Your task to perform on an android device: open app "Spotify: Music and Podcasts" (install if not already installed) Image 0: 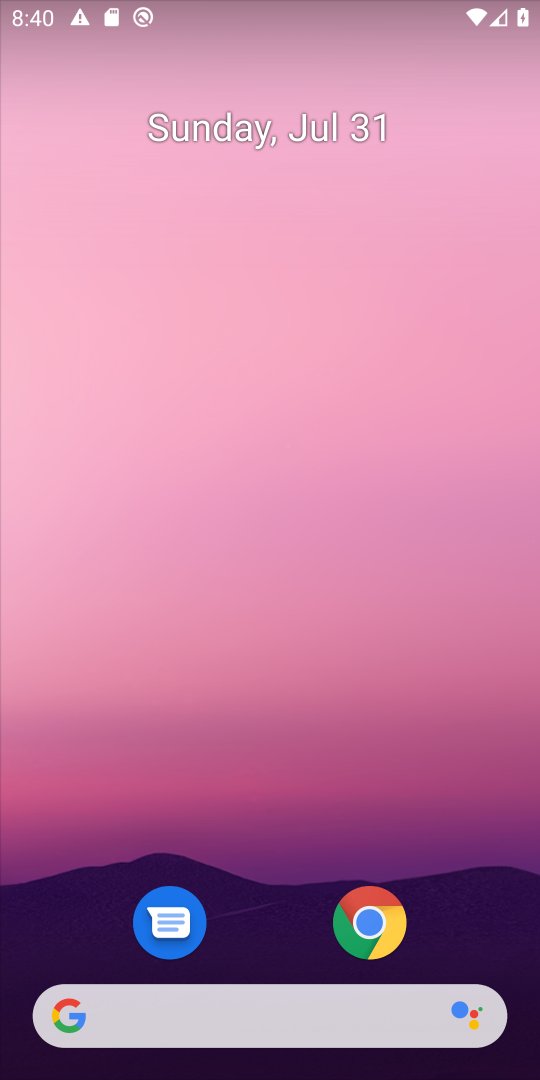
Step 0: drag from (285, 992) to (318, 384)
Your task to perform on an android device: open app "Spotify: Music and Podcasts" (install if not already installed) Image 1: 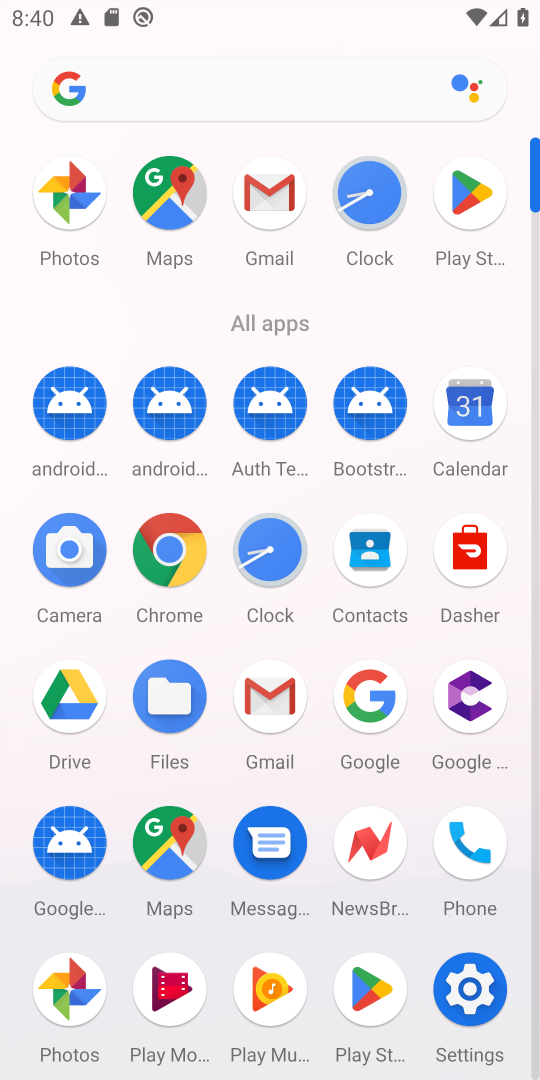
Step 1: click (461, 196)
Your task to perform on an android device: open app "Spotify: Music and Podcasts" (install if not already installed) Image 2: 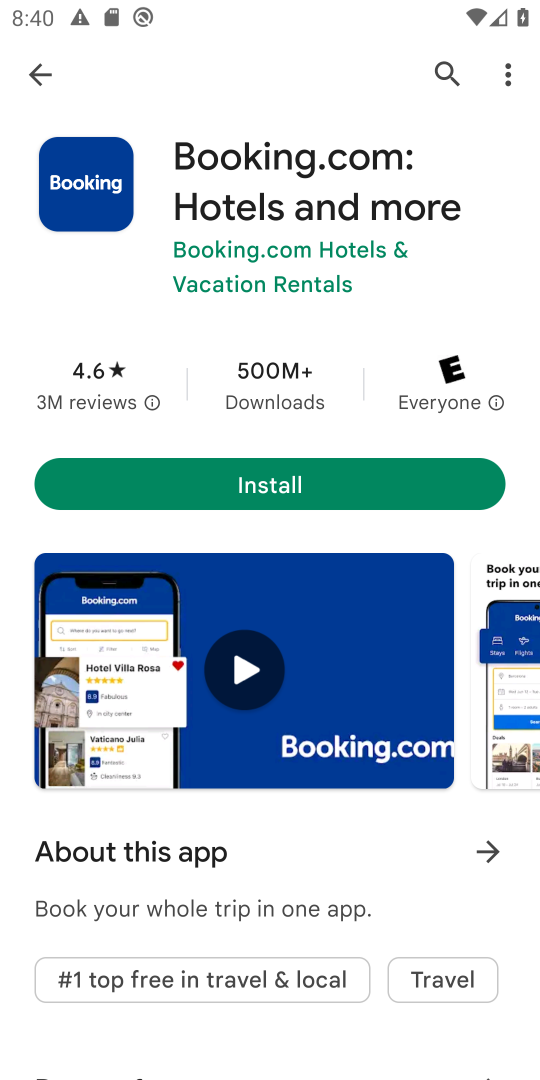
Step 2: click (452, 70)
Your task to perform on an android device: open app "Spotify: Music and Podcasts" (install if not already installed) Image 3: 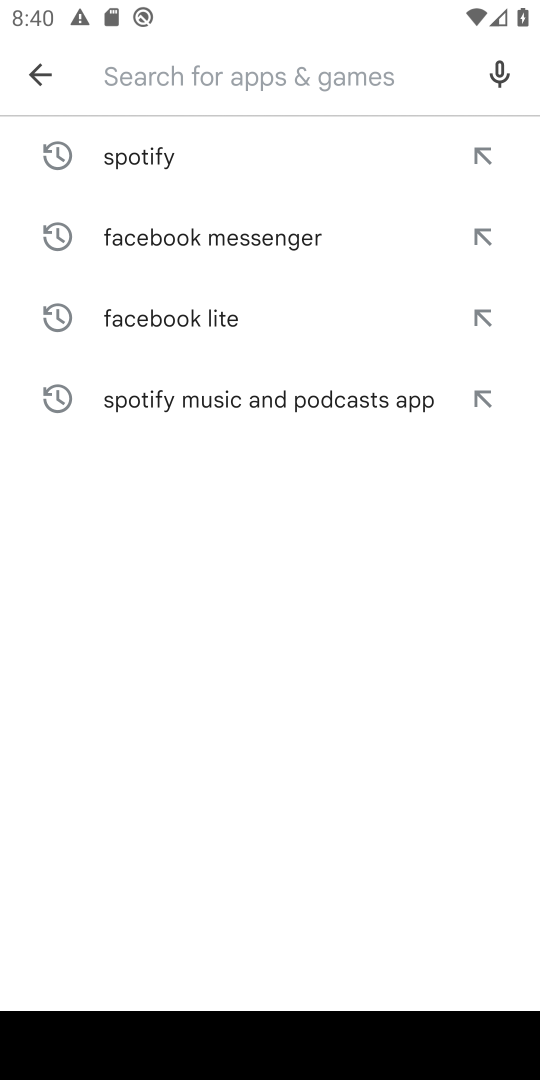
Step 3: type "Spotify: Music and Podcasts"
Your task to perform on an android device: open app "Spotify: Music and Podcasts" (install if not already installed) Image 4: 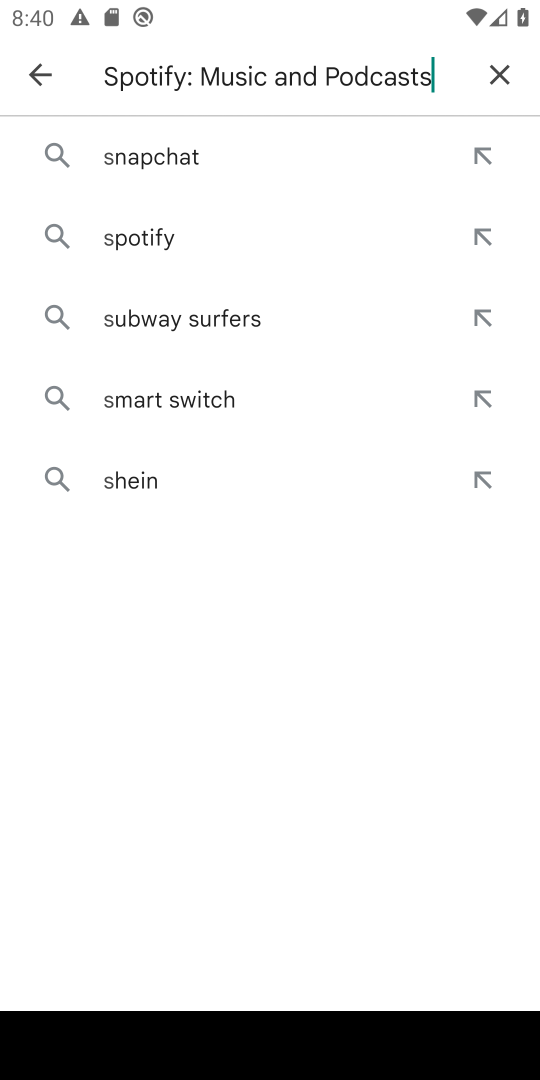
Step 4: type ""
Your task to perform on an android device: open app "Spotify: Music and Podcasts" (install if not already installed) Image 5: 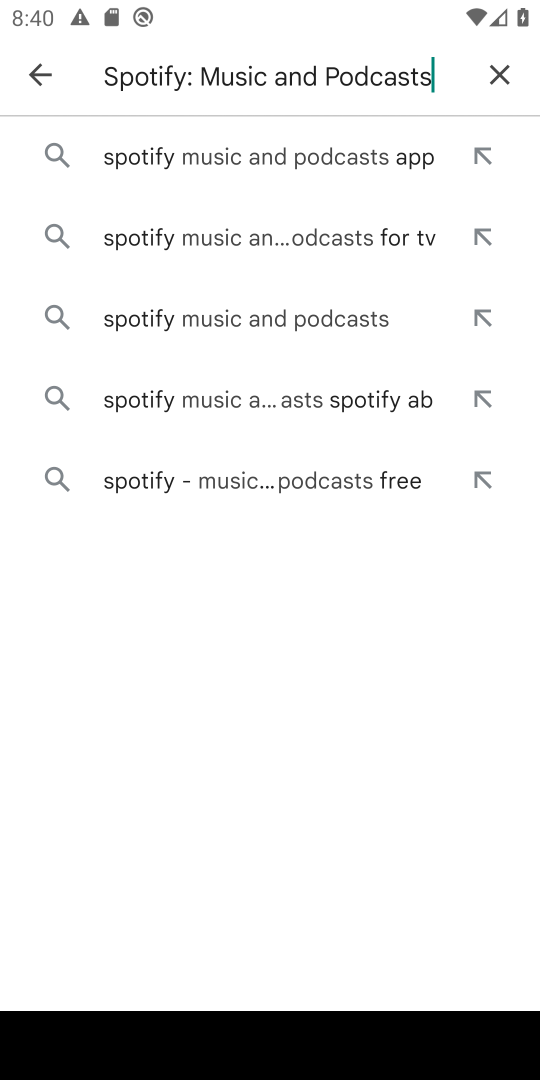
Step 5: click (279, 152)
Your task to perform on an android device: open app "Spotify: Music and Podcasts" (install if not already installed) Image 6: 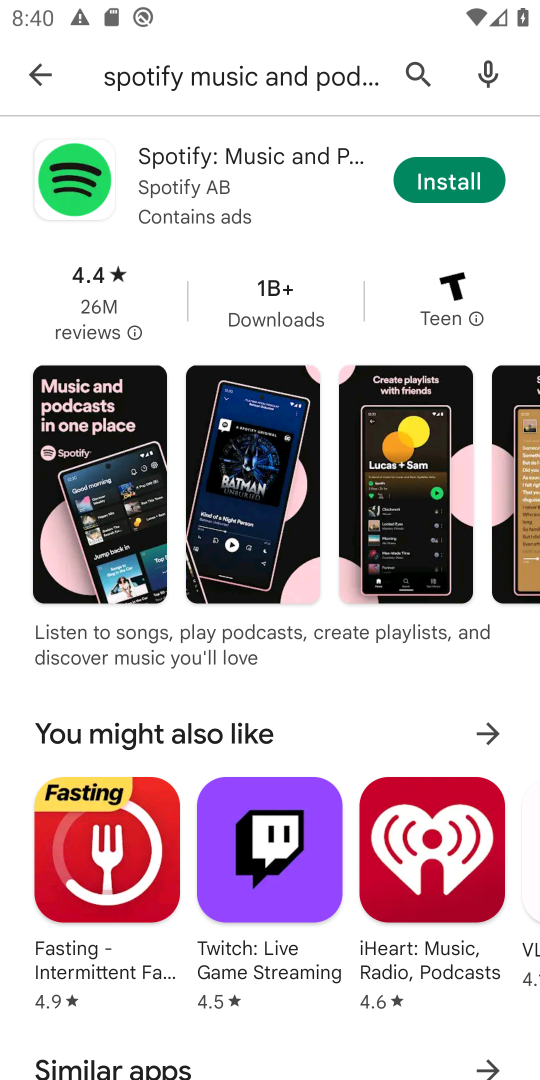
Step 6: click (455, 175)
Your task to perform on an android device: open app "Spotify: Music and Podcasts" (install if not already installed) Image 7: 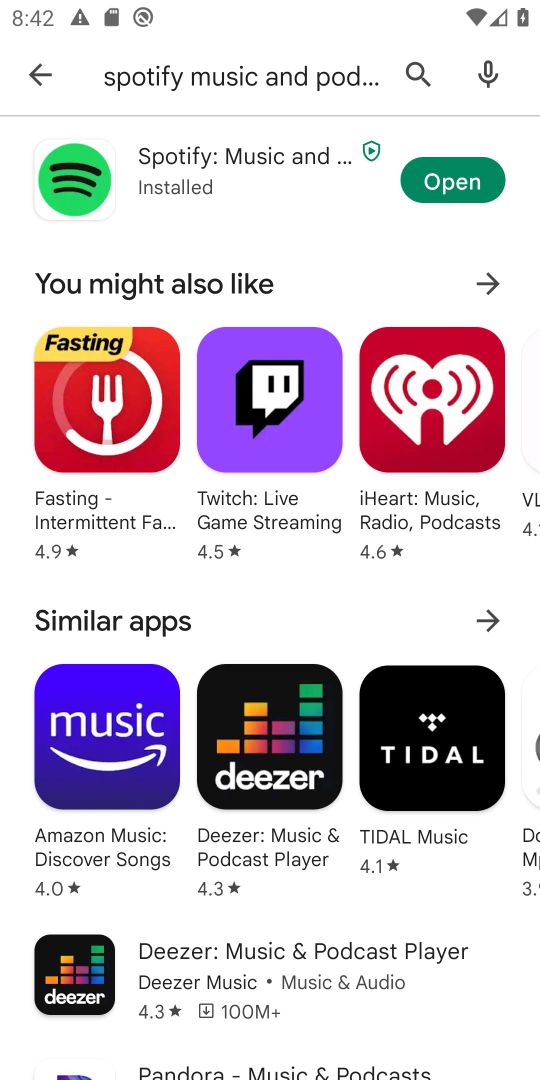
Step 7: click (458, 172)
Your task to perform on an android device: open app "Spotify: Music and Podcasts" (install if not already installed) Image 8: 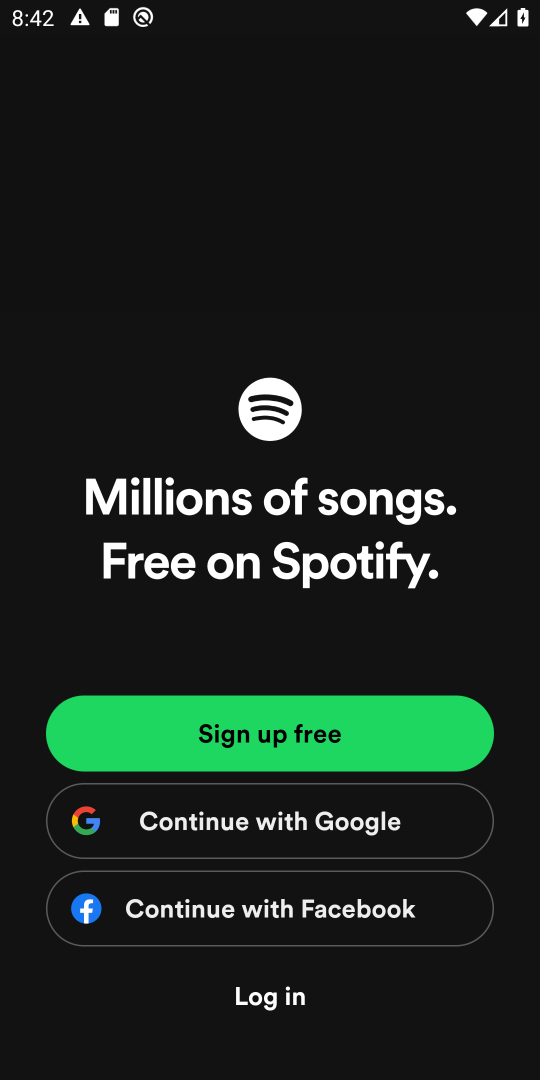
Step 8: task complete